Your task to perform on an android device: Go to accessibility settings Image 0: 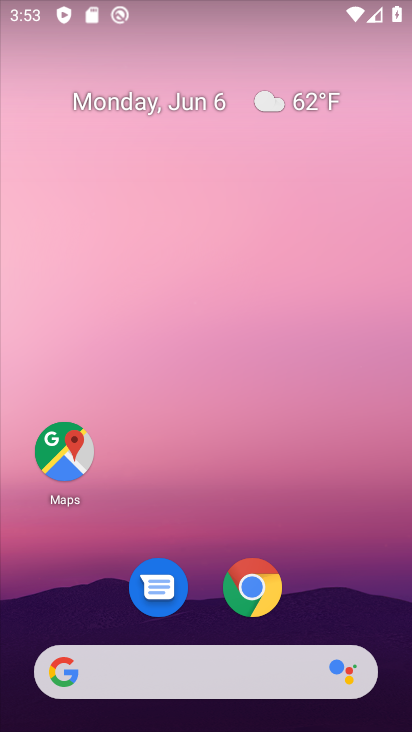
Step 0: drag from (76, 622) to (175, 154)
Your task to perform on an android device: Go to accessibility settings Image 1: 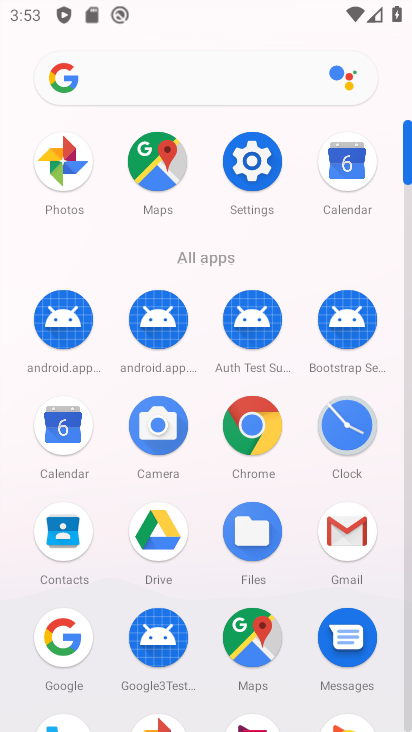
Step 1: drag from (116, 621) to (173, 397)
Your task to perform on an android device: Go to accessibility settings Image 2: 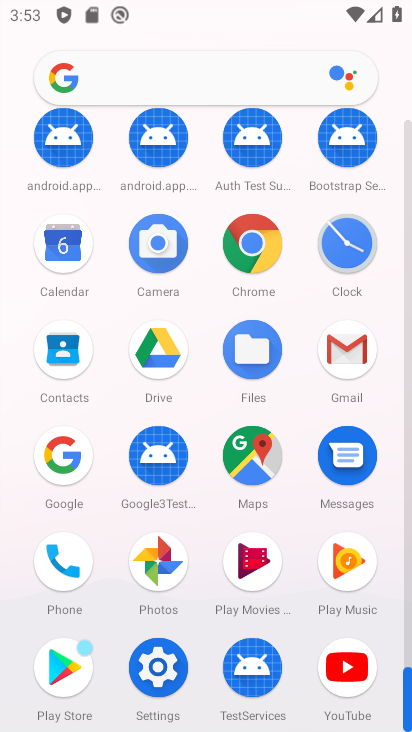
Step 2: click (163, 666)
Your task to perform on an android device: Go to accessibility settings Image 3: 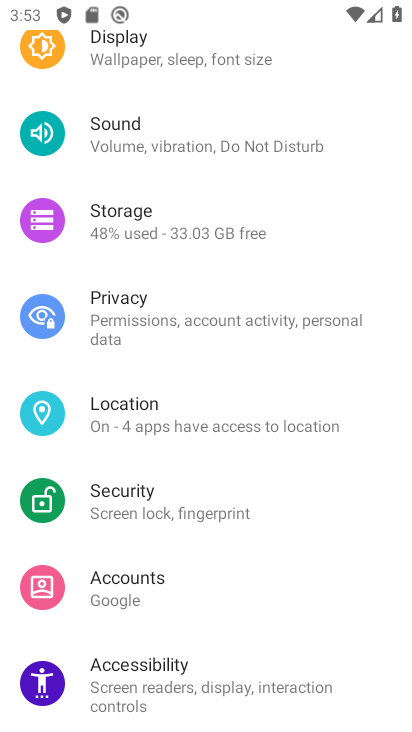
Step 3: drag from (165, 671) to (244, 348)
Your task to perform on an android device: Go to accessibility settings Image 4: 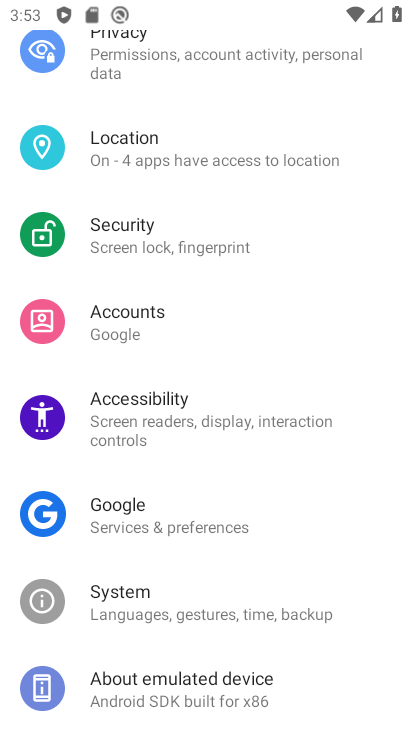
Step 4: click (204, 402)
Your task to perform on an android device: Go to accessibility settings Image 5: 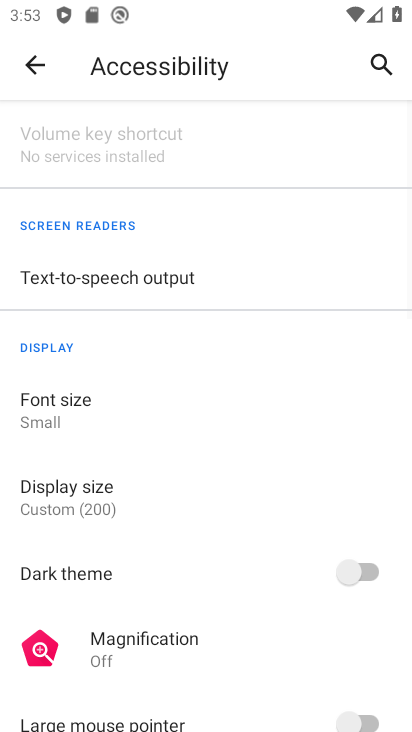
Step 5: task complete